Your task to perform on an android device: Go to display settings Image 0: 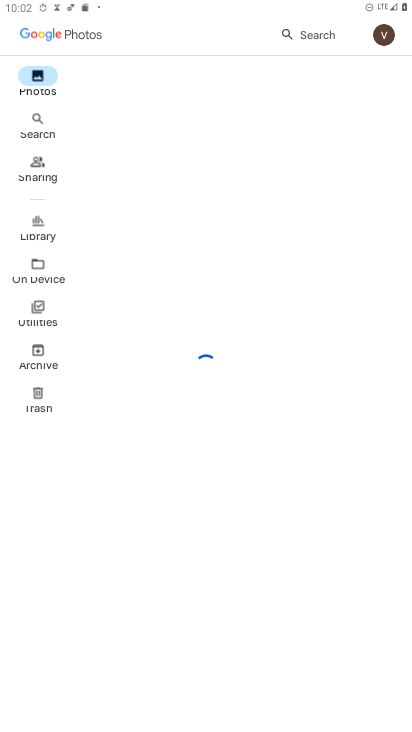
Step 0: press home button
Your task to perform on an android device: Go to display settings Image 1: 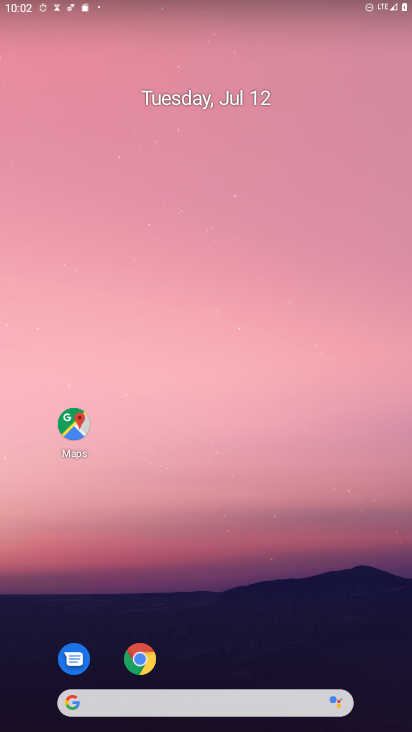
Step 1: drag from (180, 697) to (199, 222)
Your task to perform on an android device: Go to display settings Image 2: 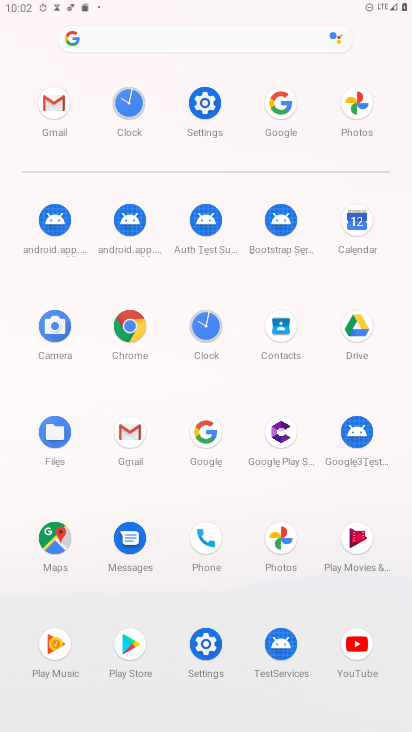
Step 2: click (203, 101)
Your task to perform on an android device: Go to display settings Image 3: 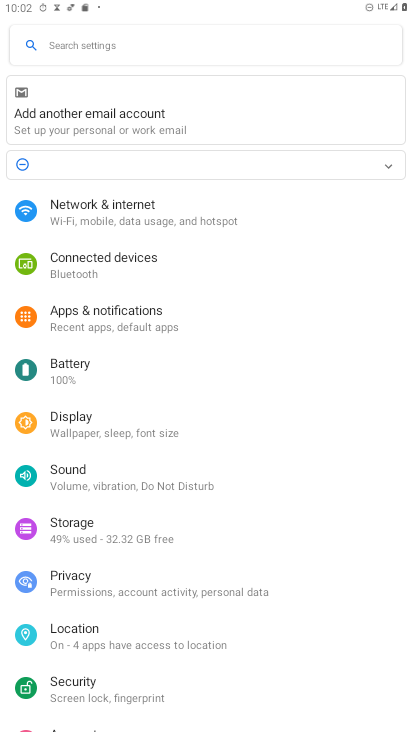
Step 3: click (95, 433)
Your task to perform on an android device: Go to display settings Image 4: 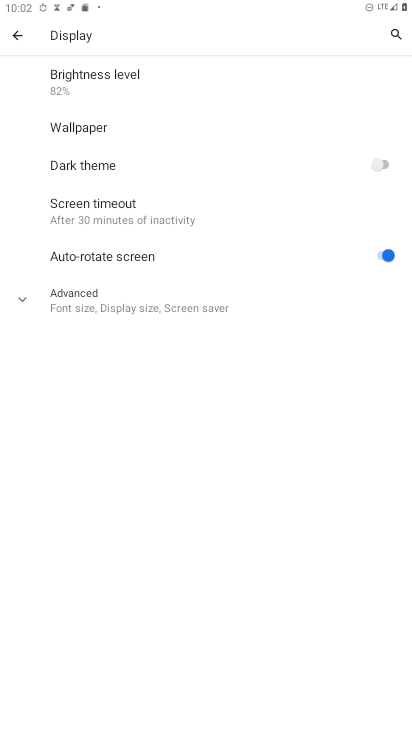
Step 4: task complete